Your task to perform on an android device: Check the news Image 0: 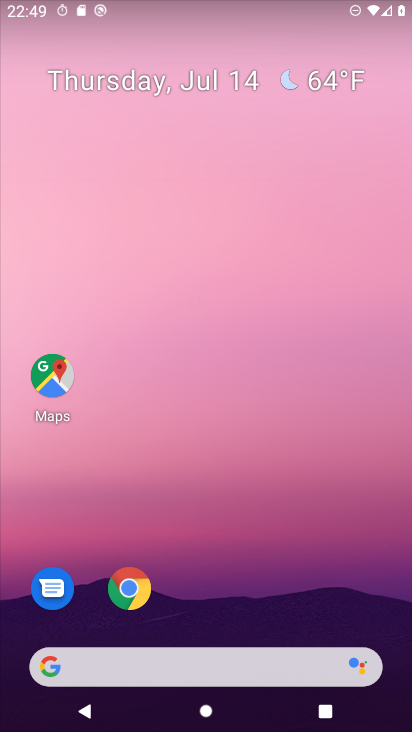
Step 0: drag from (0, 234) to (410, 403)
Your task to perform on an android device: Check the news Image 1: 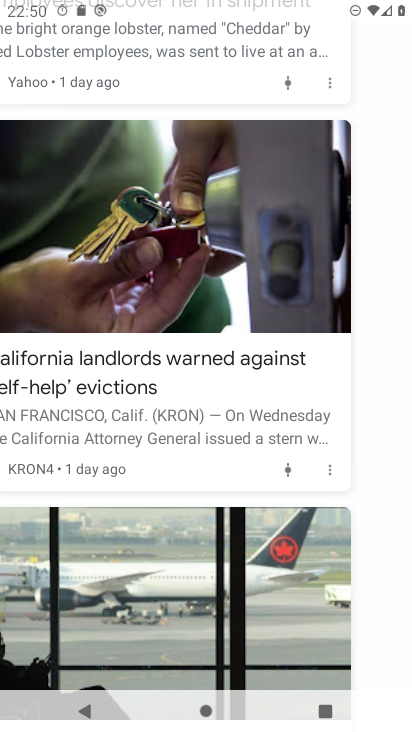
Step 1: task complete